Your task to perform on an android device: Open calendar and show me the third week of next month Image 0: 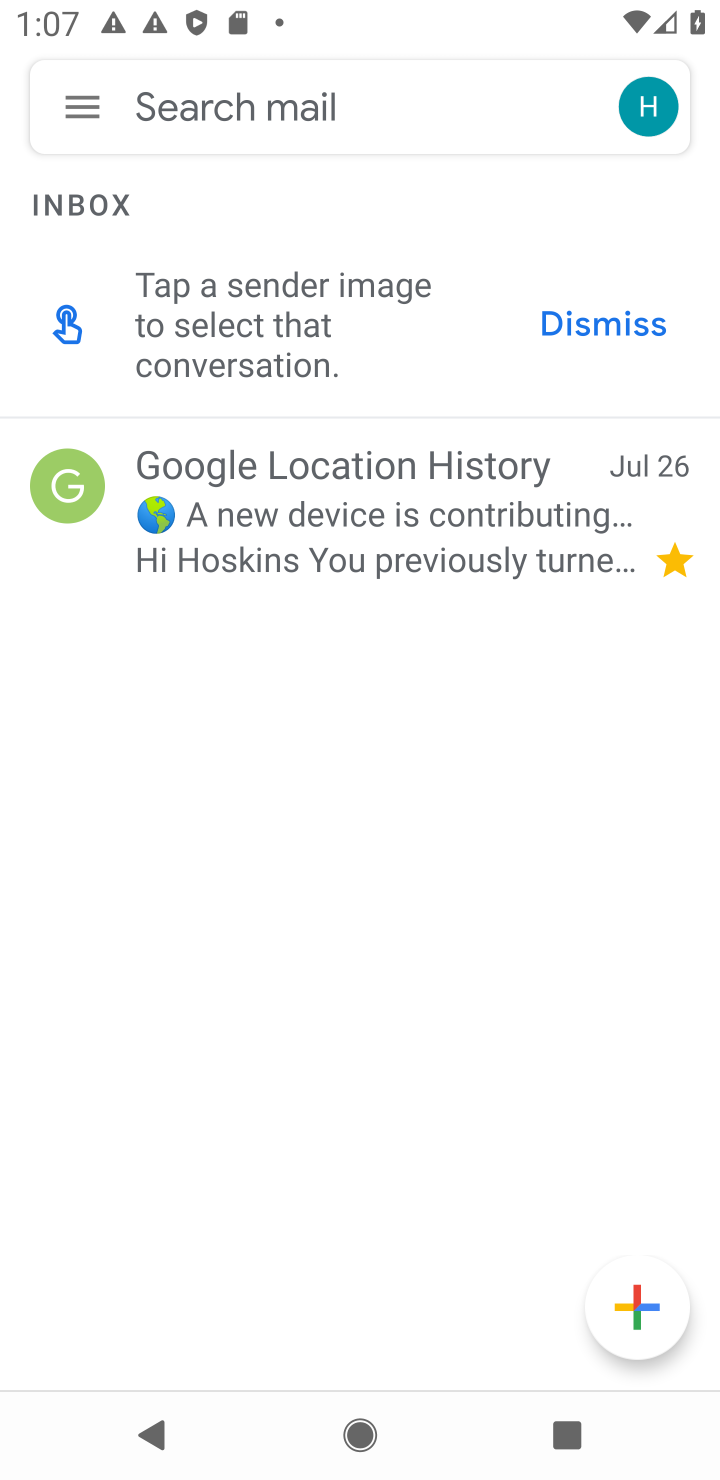
Step 0: press home button
Your task to perform on an android device: Open calendar and show me the third week of next month Image 1: 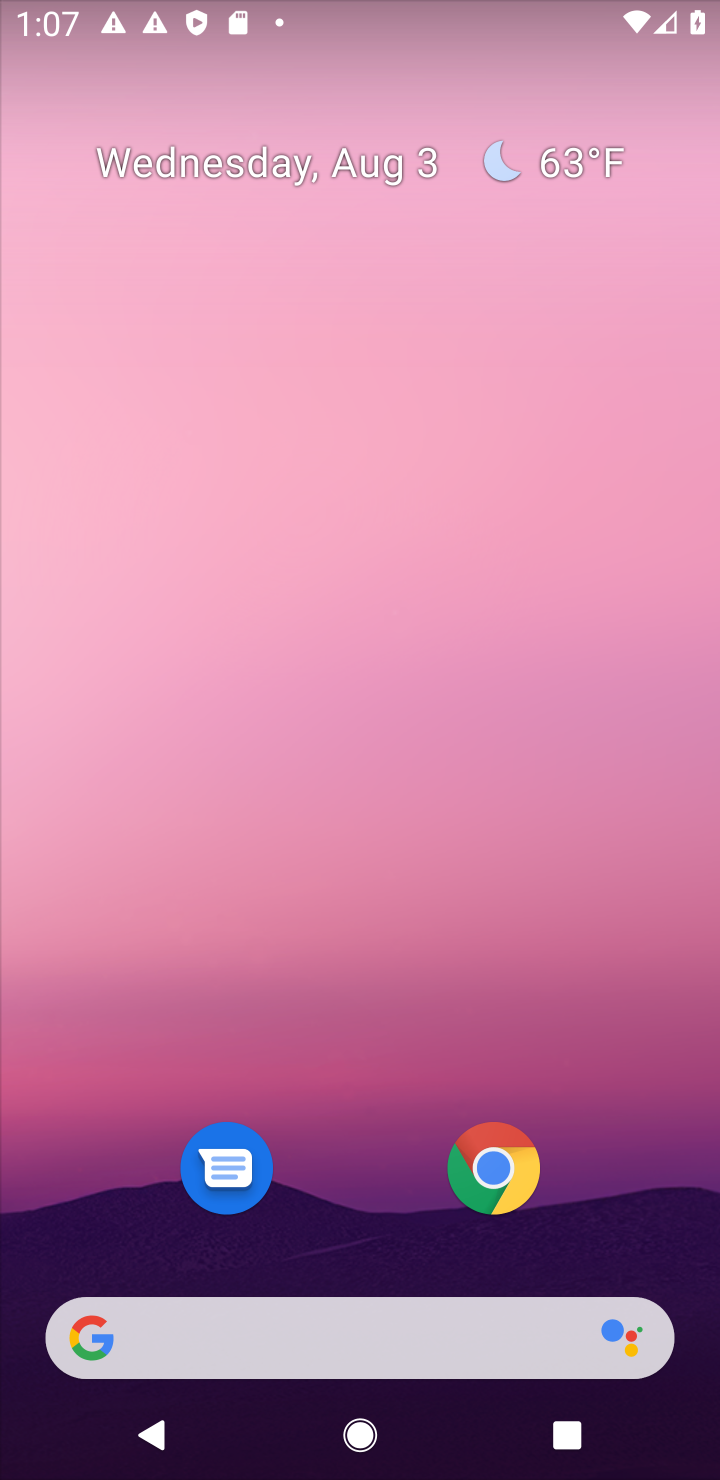
Step 1: drag from (599, 1238) to (571, 341)
Your task to perform on an android device: Open calendar and show me the third week of next month Image 2: 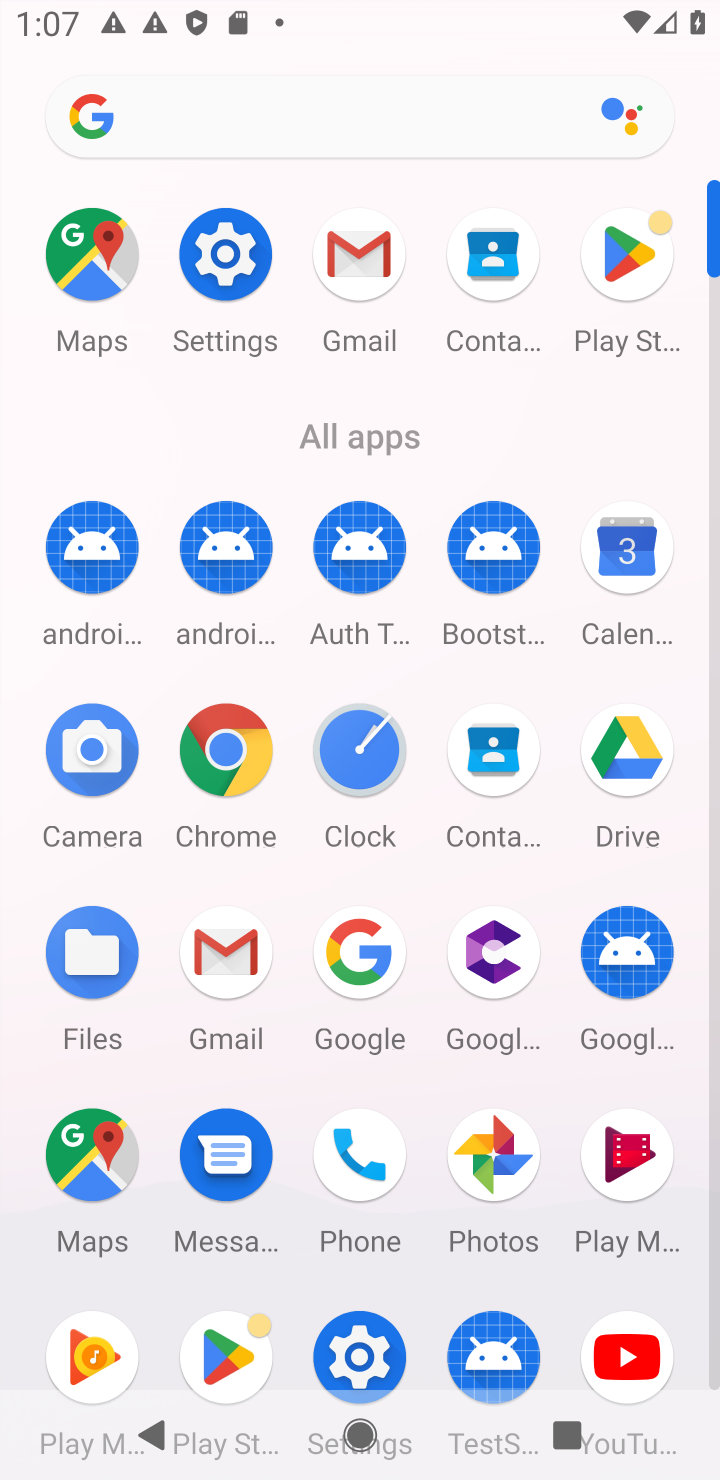
Step 2: click (624, 556)
Your task to perform on an android device: Open calendar and show me the third week of next month Image 3: 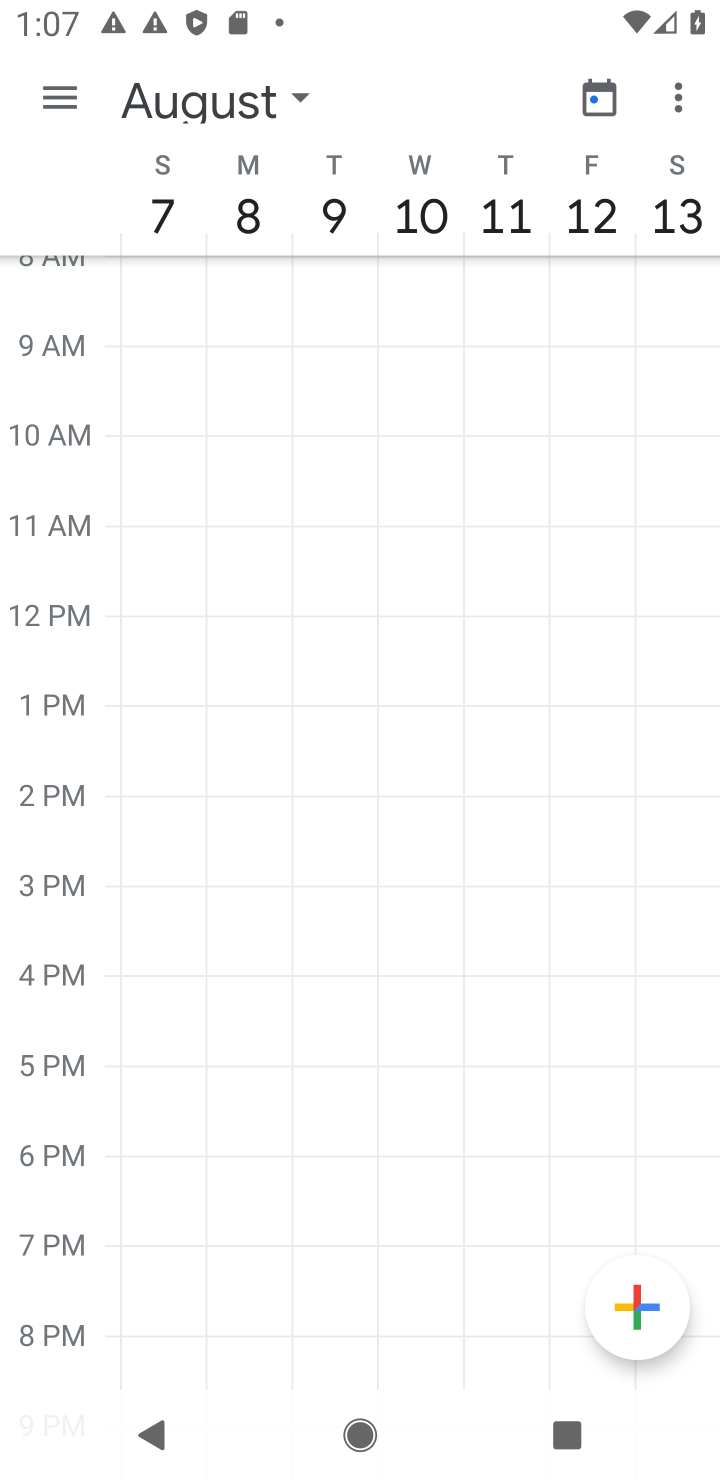
Step 3: click (294, 95)
Your task to perform on an android device: Open calendar and show me the third week of next month Image 4: 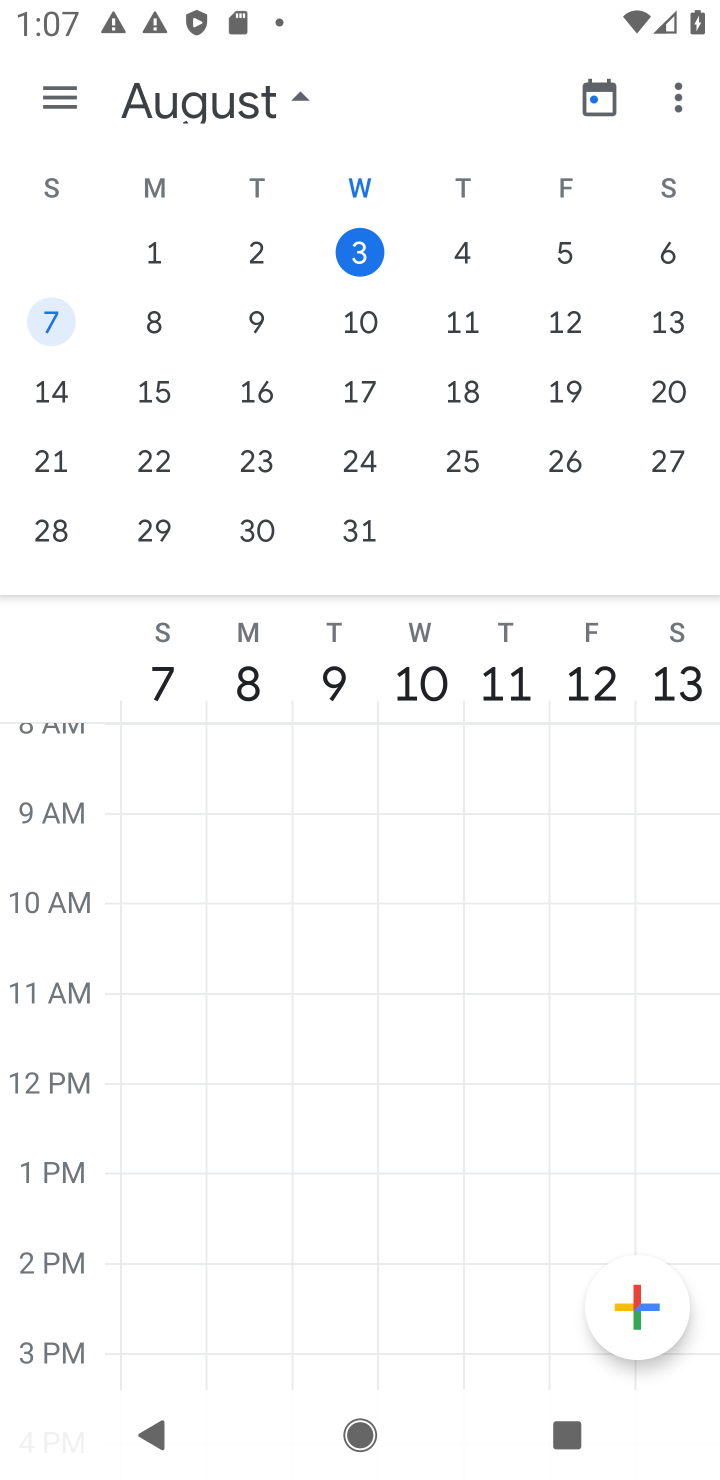
Step 4: click (38, 450)
Your task to perform on an android device: Open calendar and show me the third week of next month Image 5: 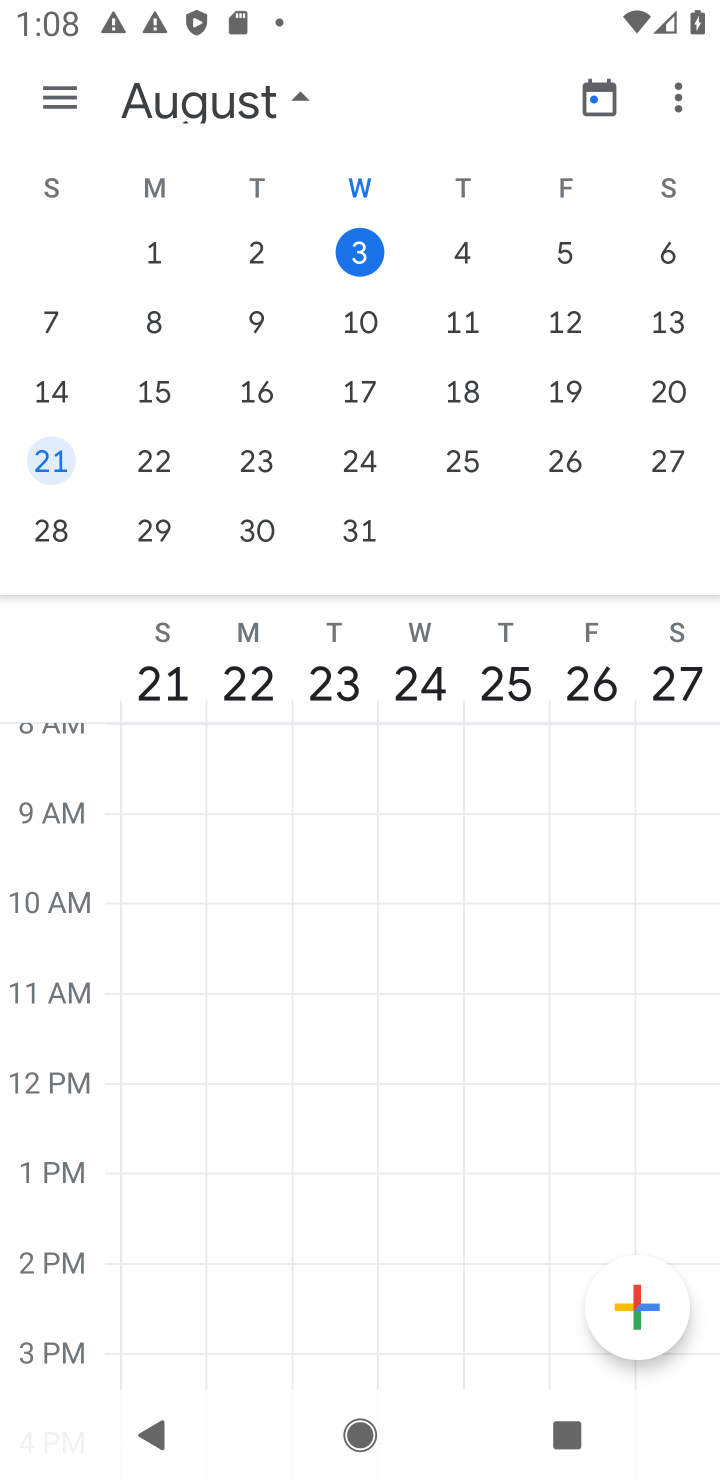
Step 5: drag from (319, 1034) to (323, 308)
Your task to perform on an android device: Open calendar and show me the third week of next month Image 6: 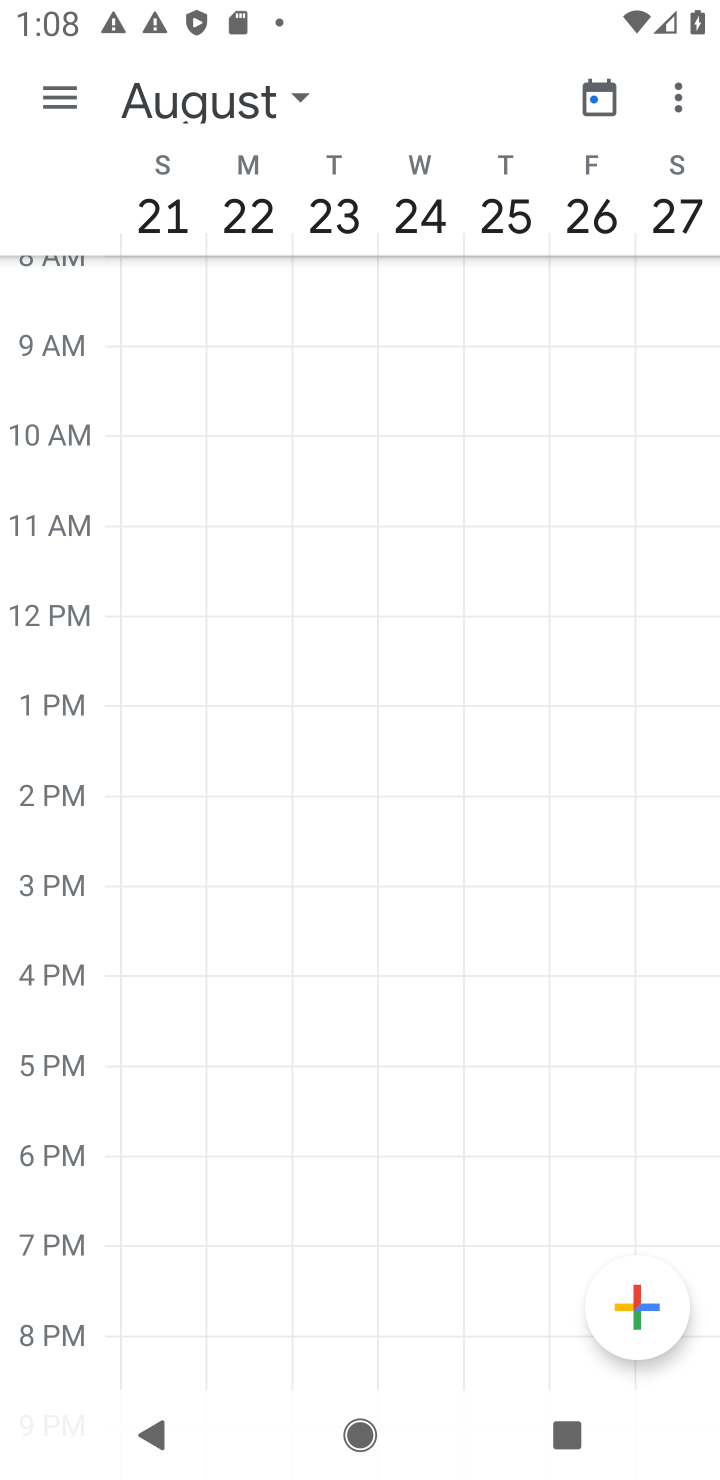
Step 6: drag from (382, 355) to (344, 927)
Your task to perform on an android device: Open calendar and show me the third week of next month Image 7: 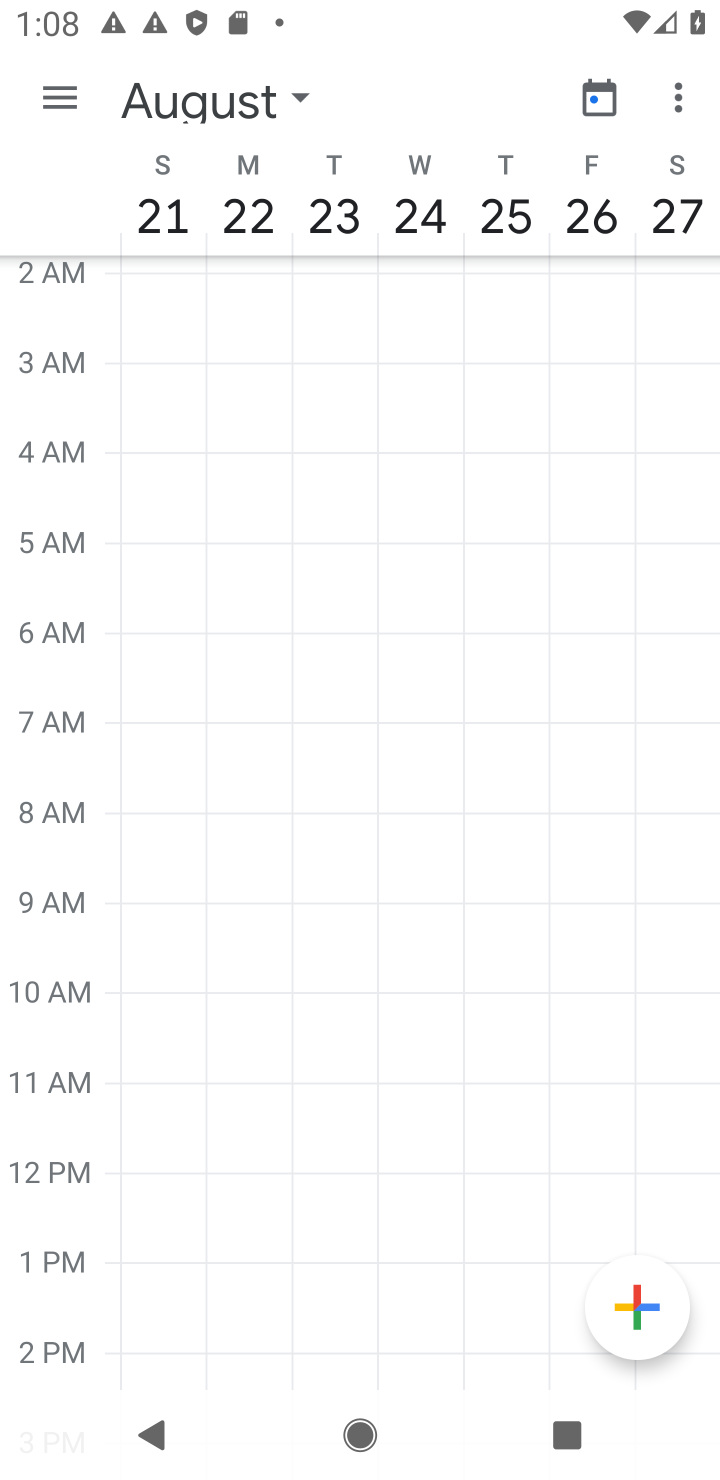
Step 7: click (373, 493)
Your task to perform on an android device: Open calendar and show me the third week of next month Image 8: 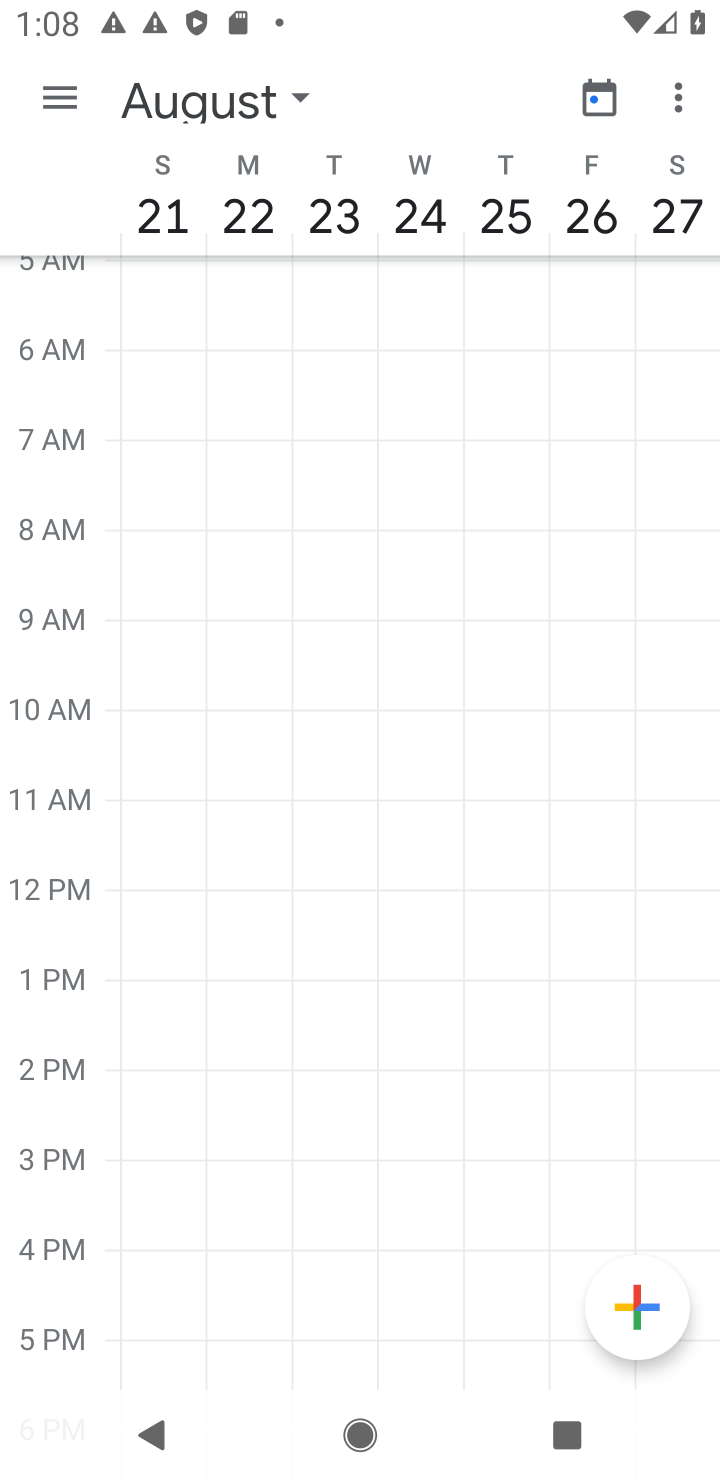
Step 8: task complete